Your task to perform on an android device: toggle airplane mode Image 0: 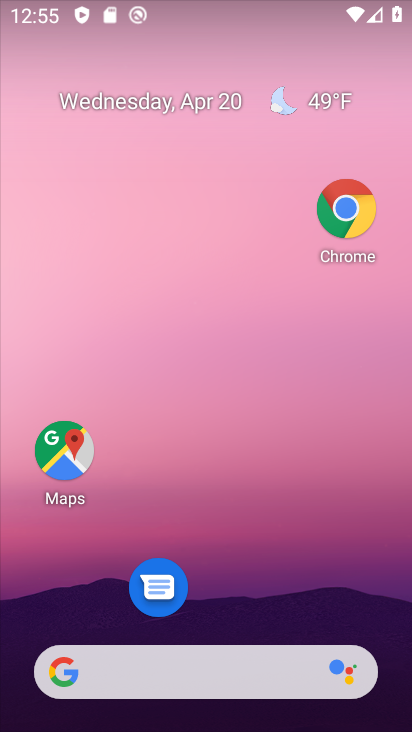
Step 0: drag from (215, 577) to (314, 9)
Your task to perform on an android device: toggle airplane mode Image 1: 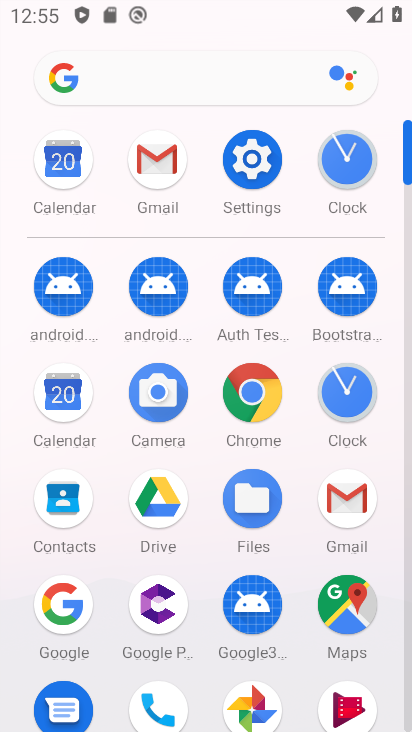
Step 1: click (258, 213)
Your task to perform on an android device: toggle airplane mode Image 2: 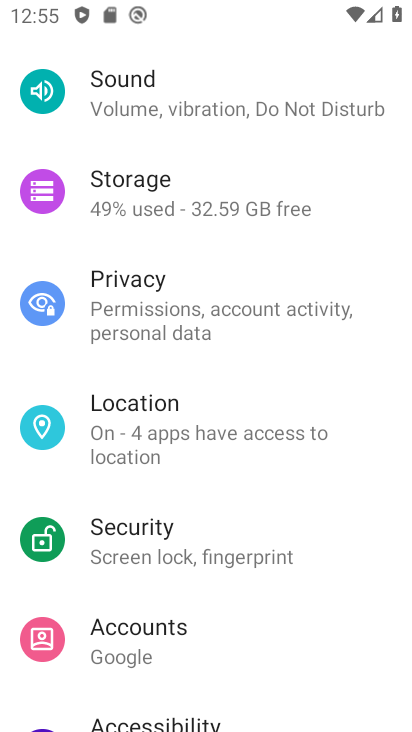
Step 2: drag from (253, 192) to (235, 448)
Your task to perform on an android device: toggle airplane mode Image 3: 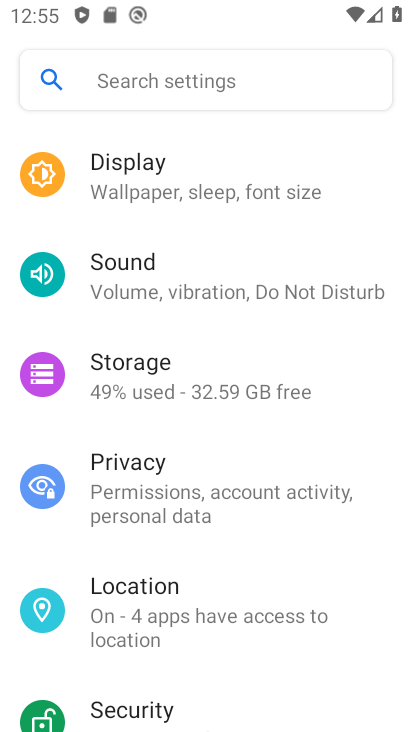
Step 3: drag from (206, 199) to (208, 616)
Your task to perform on an android device: toggle airplane mode Image 4: 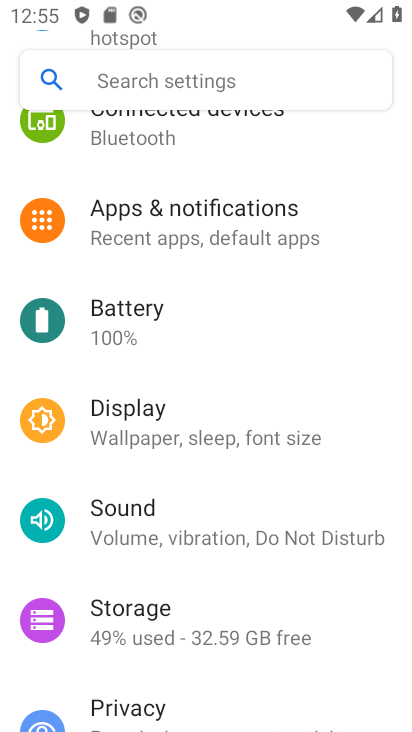
Step 4: drag from (195, 242) to (167, 638)
Your task to perform on an android device: toggle airplane mode Image 5: 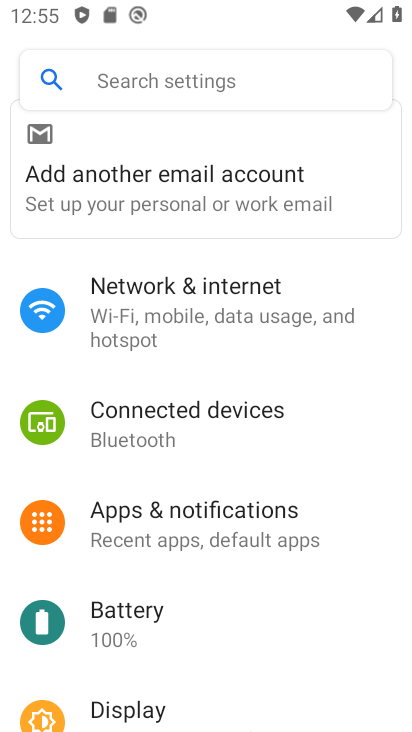
Step 5: click (200, 313)
Your task to perform on an android device: toggle airplane mode Image 6: 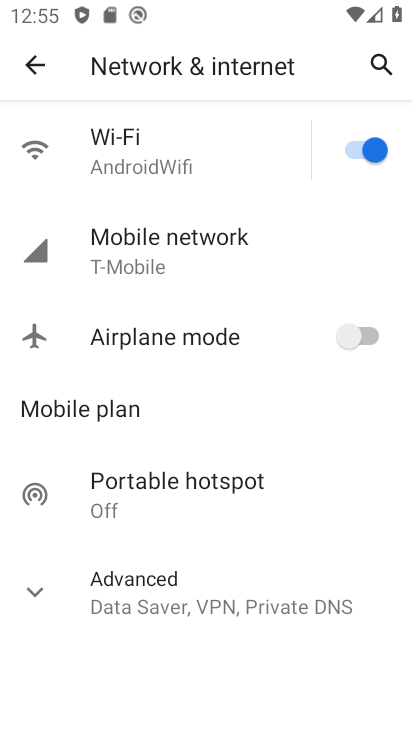
Step 6: click (371, 332)
Your task to perform on an android device: toggle airplane mode Image 7: 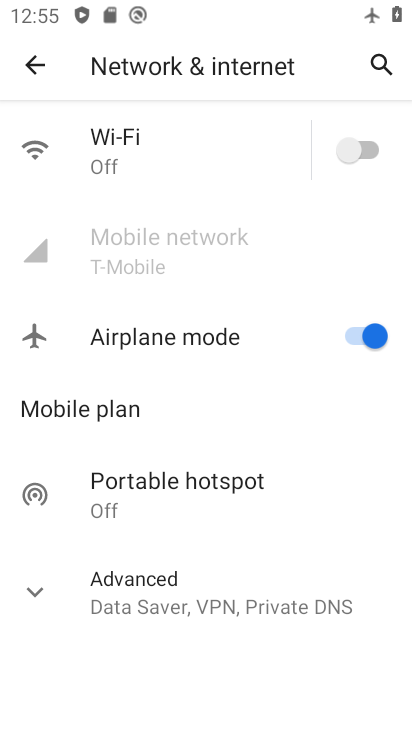
Step 7: task complete